Your task to perform on an android device: Turn off the flashlight Image 0: 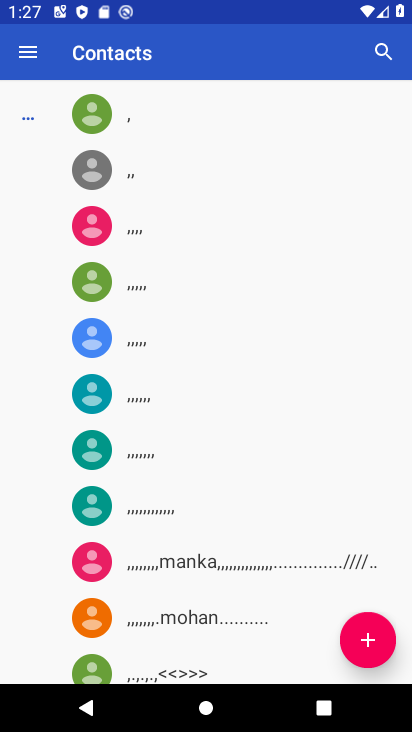
Step 0: drag from (290, 5) to (296, 350)
Your task to perform on an android device: Turn off the flashlight Image 1: 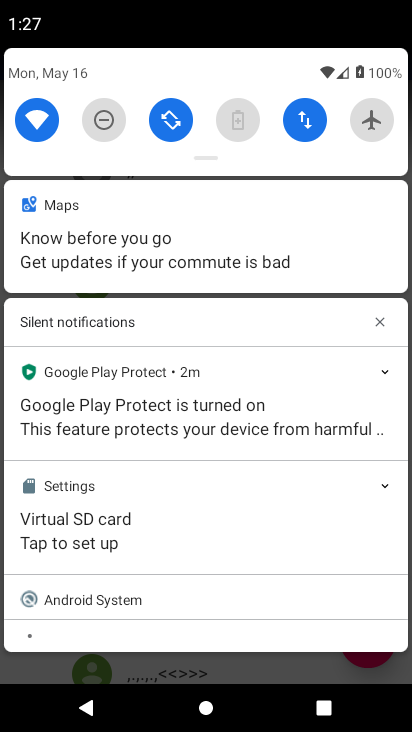
Step 1: drag from (275, 149) to (239, 677)
Your task to perform on an android device: Turn off the flashlight Image 2: 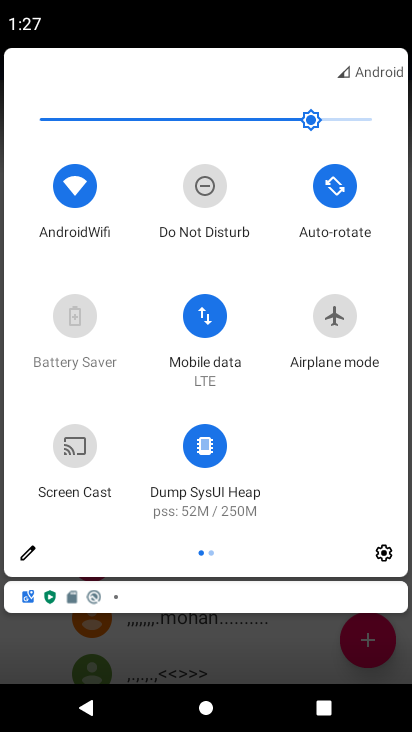
Step 2: click (27, 555)
Your task to perform on an android device: Turn off the flashlight Image 3: 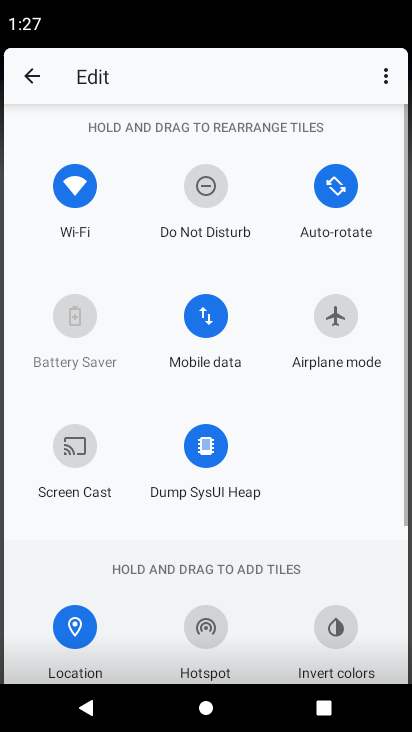
Step 3: task complete